Your task to perform on an android device: turn off notifications in google photos Image 0: 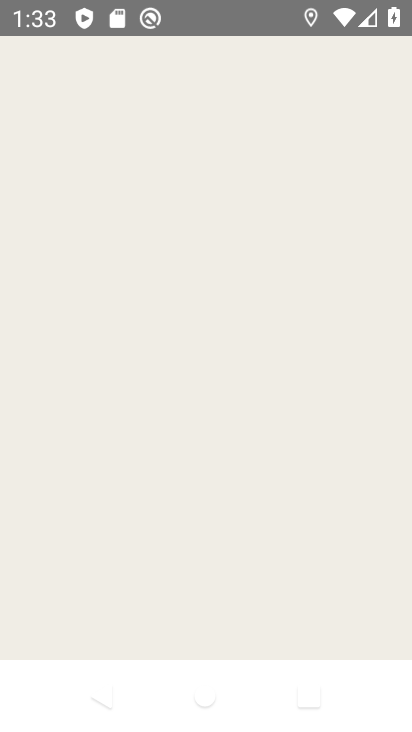
Step 0: press home button
Your task to perform on an android device: turn off notifications in google photos Image 1: 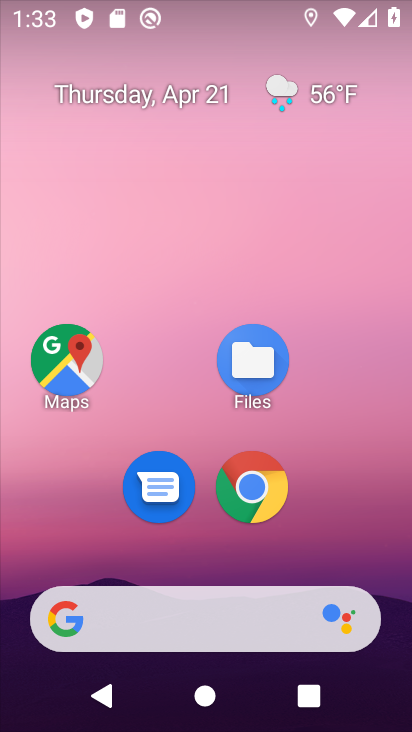
Step 1: drag from (359, 509) to (380, 164)
Your task to perform on an android device: turn off notifications in google photos Image 2: 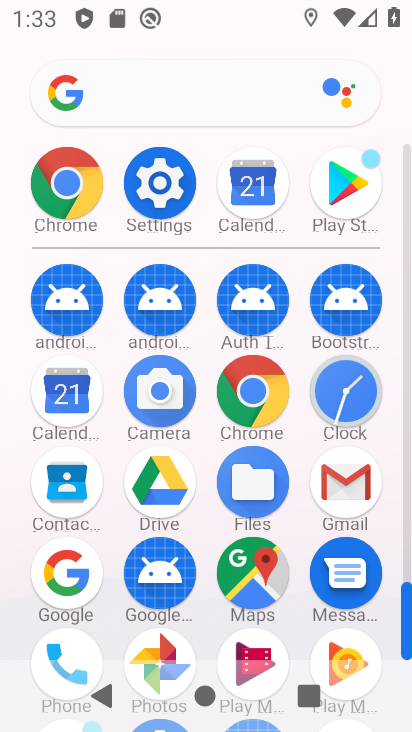
Step 2: click (162, 646)
Your task to perform on an android device: turn off notifications in google photos Image 3: 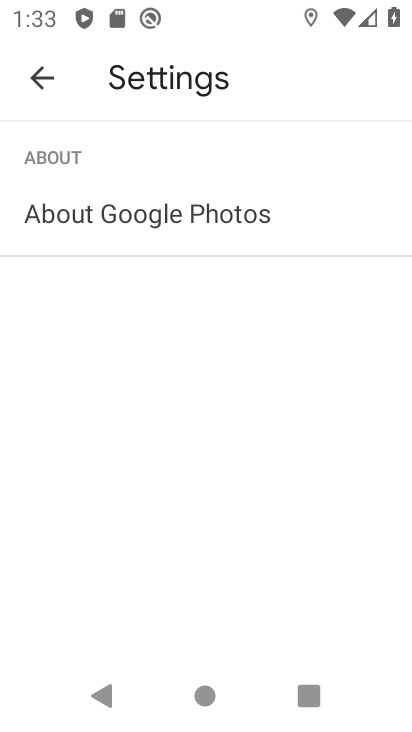
Step 3: click (41, 73)
Your task to perform on an android device: turn off notifications in google photos Image 4: 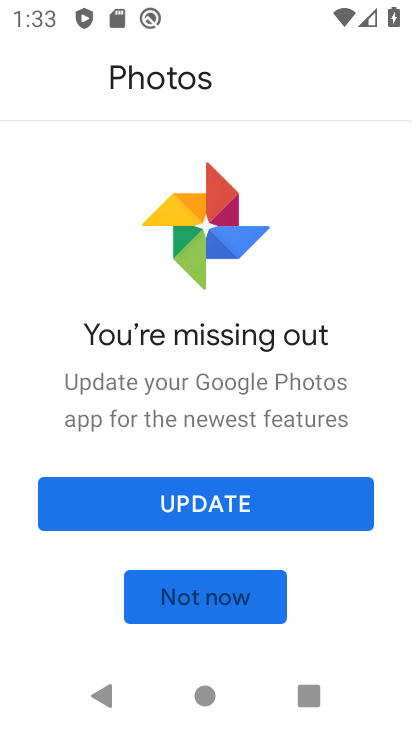
Step 4: click (176, 501)
Your task to perform on an android device: turn off notifications in google photos Image 5: 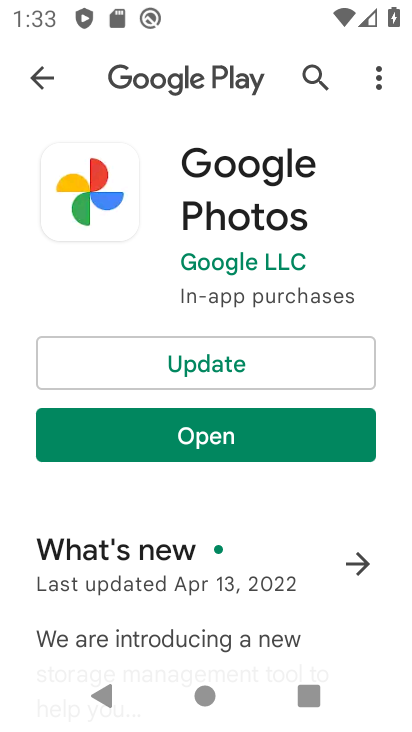
Step 5: click (266, 360)
Your task to perform on an android device: turn off notifications in google photos Image 6: 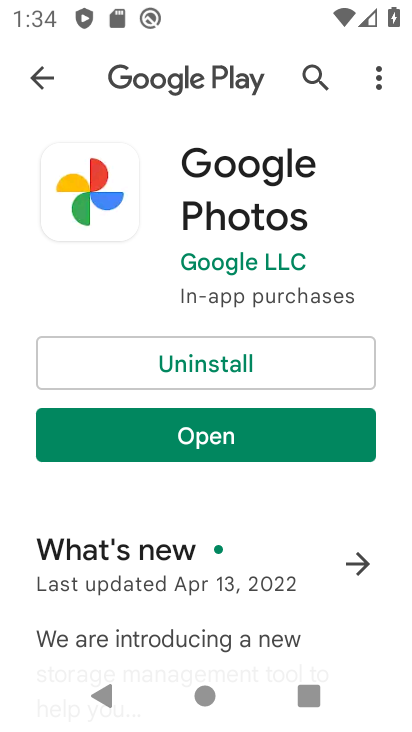
Step 6: click (251, 443)
Your task to perform on an android device: turn off notifications in google photos Image 7: 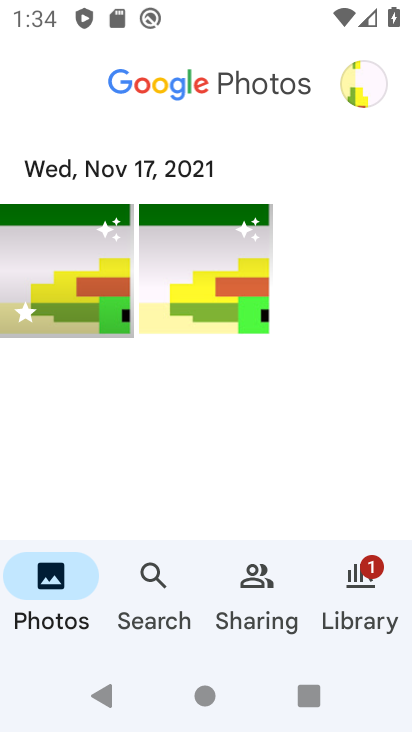
Step 7: click (364, 94)
Your task to perform on an android device: turn off notifications in google photos Image 8: 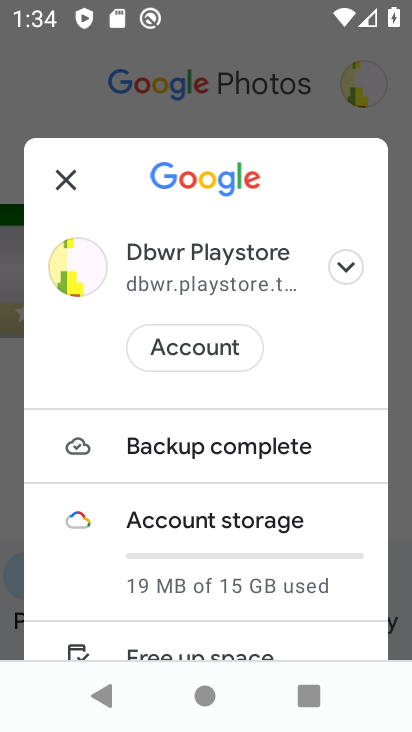
Step 8: drag from (268, 613) to (306, 300)
Your task to perform on an android device: turn off notifications in google photos Image 9: 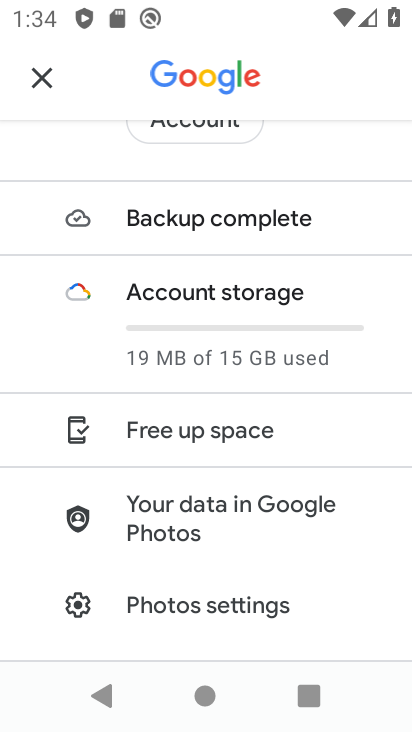
Step 9: click (190, 604)
Your task to perform on an android device: turn off notifications in google photos Image 10: 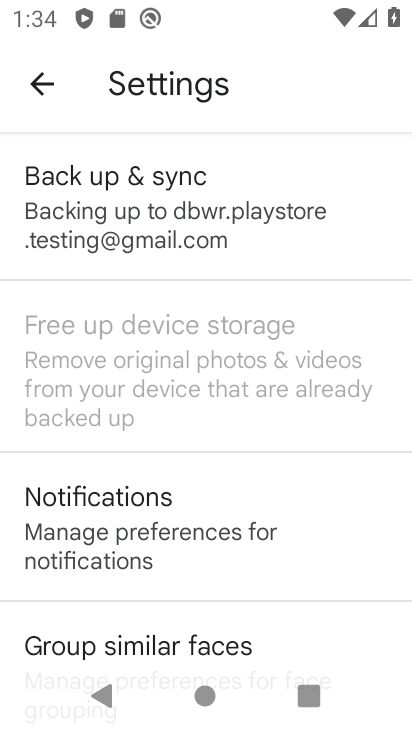
Step 10: click (191, 535)
Your task to perform on an android device: turn off notifications in google photos Image 11: 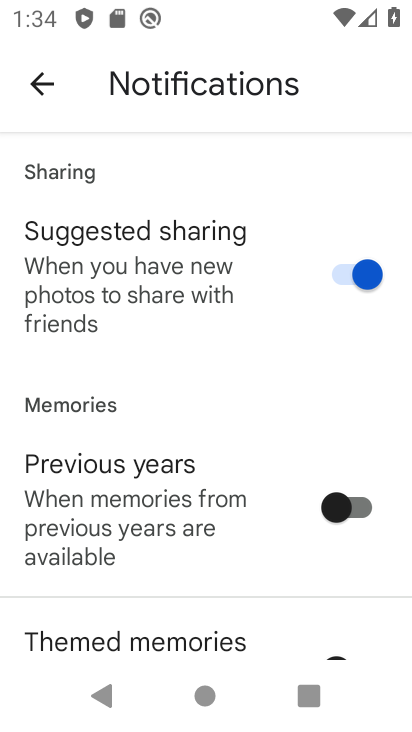
Step 11: drag from (220, 582) to (217, 340)
Your task to perform on an android device: turn off notifications in google photos Image 12: 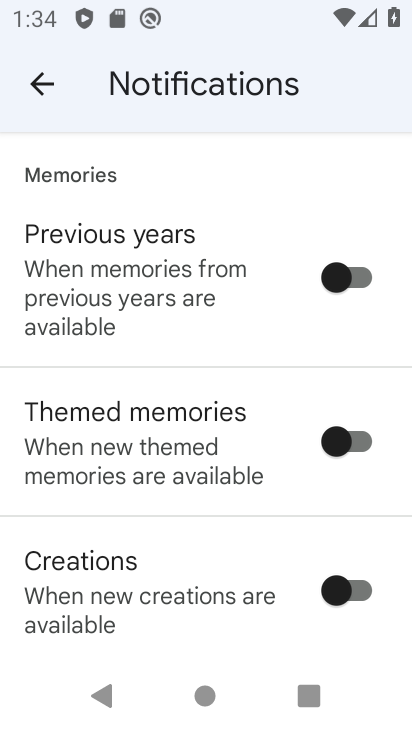
Step 12: drag from (205, 512) to (209, 239)
Your task to perform on an android device: turn off notifications in google photos Image 13: 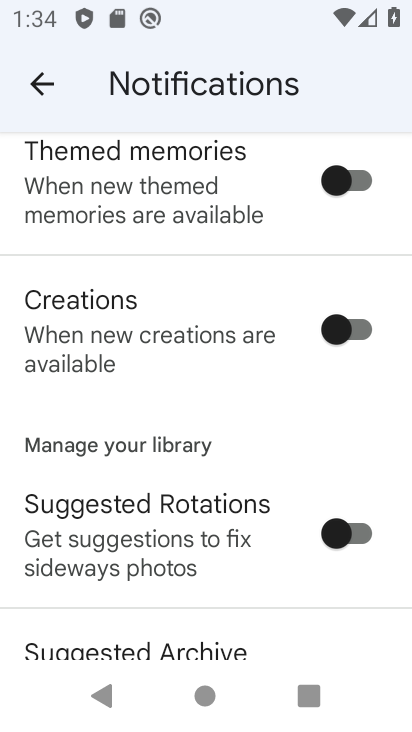
Step 13: drag from (202, 605) to (190, 277)
Your task to perform on an android device: turn off notifications in google photos Image 14: 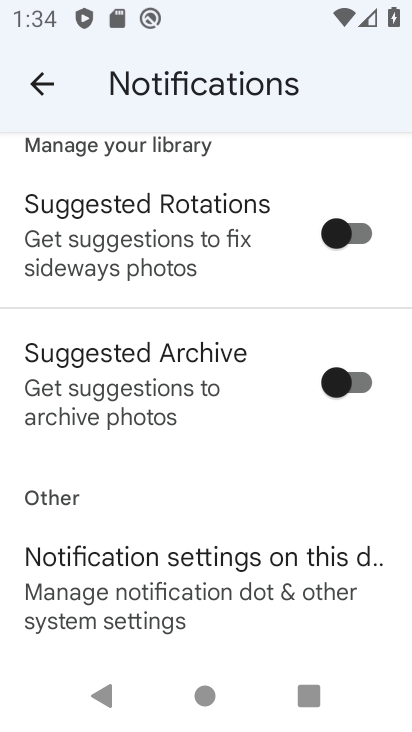
Step 14: click (223, 598)
Your task to perform on an android device: turn off notifications in google photos Image 15: 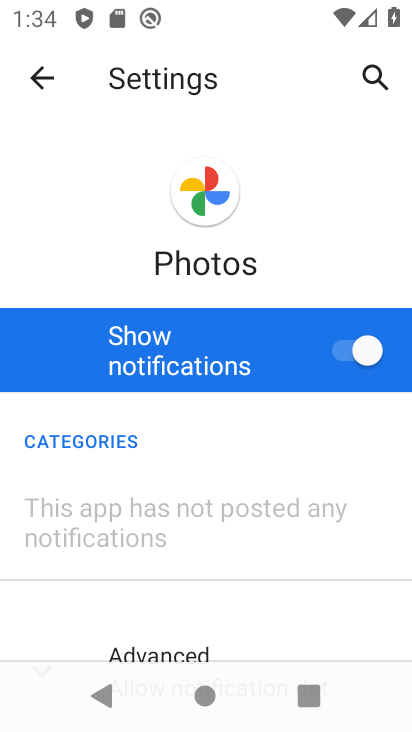
Step 15: click (352, 351)
Your task to perform on an android device: turn off notifications in google photos Image 16: 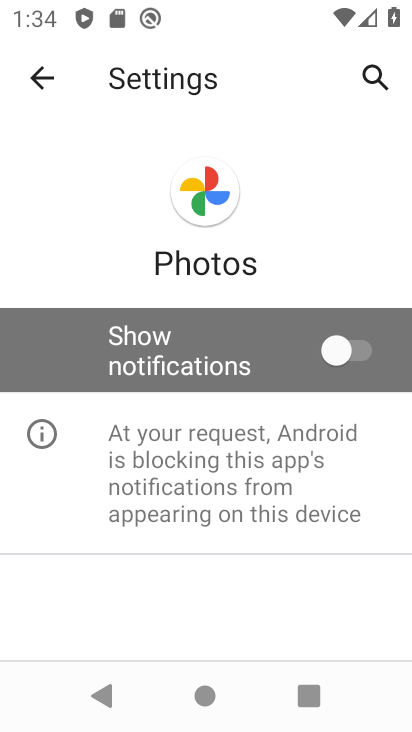
Step 16: task complete